Your task to perform on an android device: Google the capital of Bolivia Image 0: 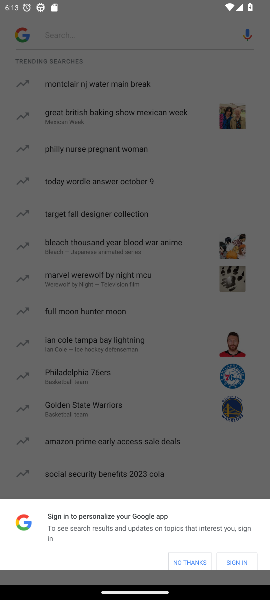
Step 0: click (187, 557)
Your task to perform on an android device: Google the capital of Bolivia Image 1: 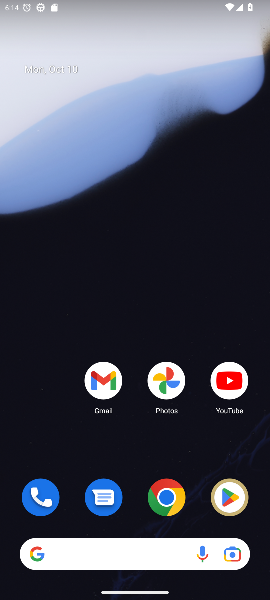
Step 1: drag from (127, 510) to (127, 180)
Your task to perform on an android device: Google the capital of Bolivia Image 2: 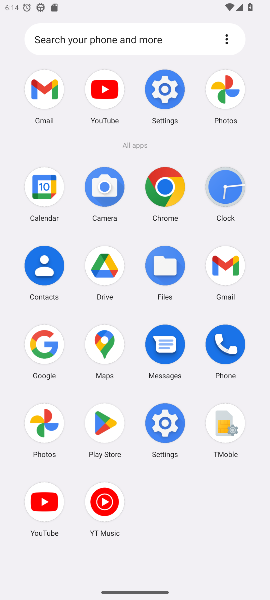
Step 2: click (48, 341)
Your task to perform on an android device: Google the capital of Bolivia Image 3: 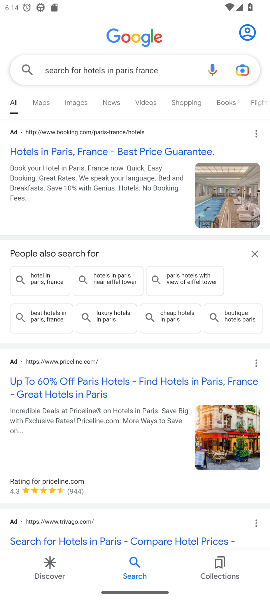
Step 3: click (176, 67)
Your task to perform on an android device: Google the capital of Bolivia Image 4: 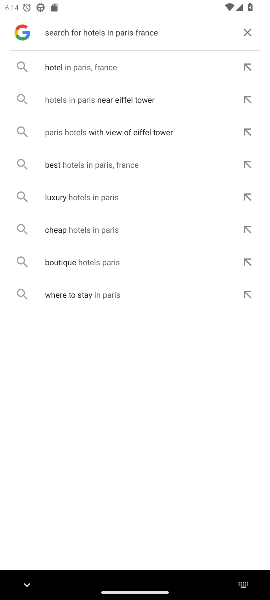
Step 4: click (240, 29)
Your task to perform on an android device: Google the capital of Bolivia Image 5: 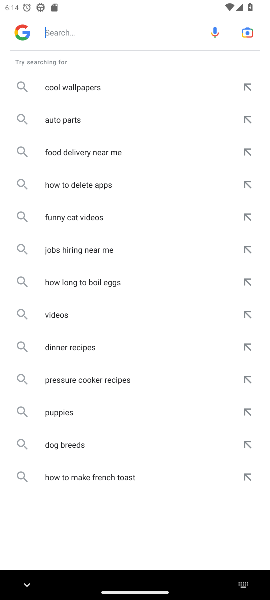
Step 5: click (90, 25)
Your task to perform on an android device: Google the capital of Bolivia Image 6: 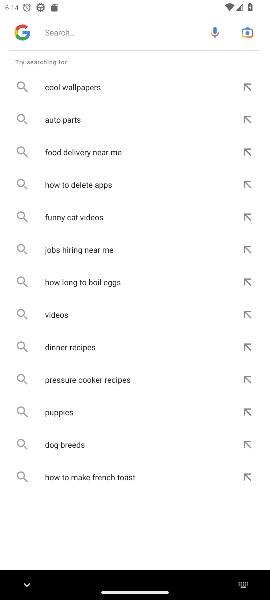
Step 6: type "Google the capital of Bolivia"
Your task to perform on an android device: Google the capital of Bolivia Image 7: 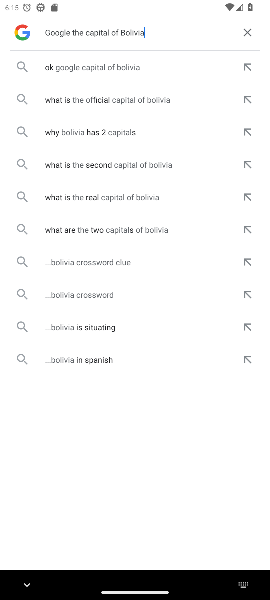
Step 7: click (104, 65)
Your task to perform on an android device: Google the capital of Bolivia Image 8: 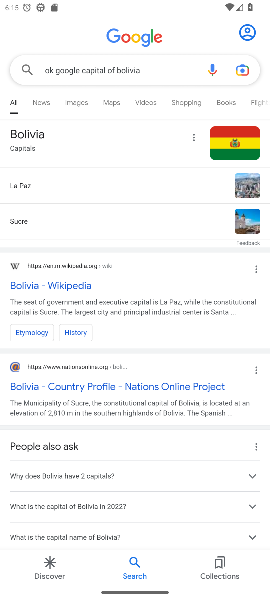
Step 8: task complete